Your task to perform on an android device: search for starred emails in the gmail app Image 0: 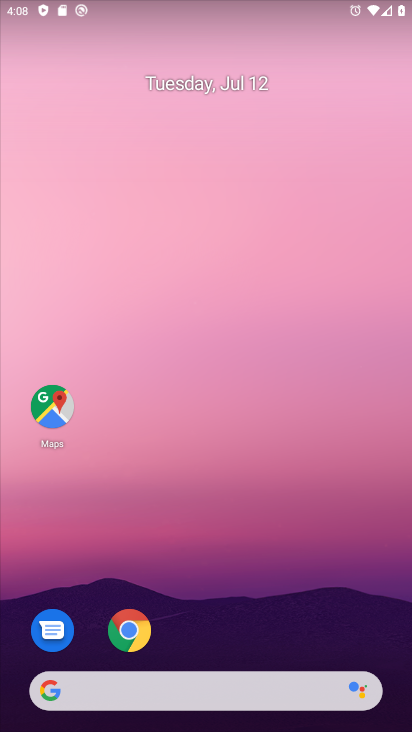
Step 0: drag from (280, 541) to (195, 127)
Your task to perform on an android device: search for starred emails in the gmail app Image 1: 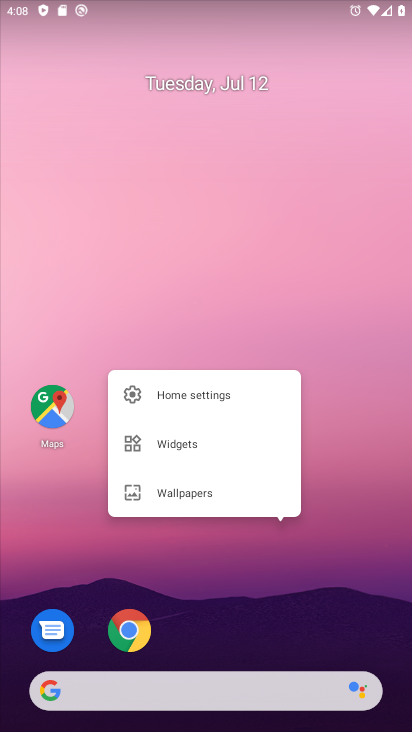
Step 1: click (219, 298)
Your task to perform on an android device: search for starred emails in the gmail app Image 2: 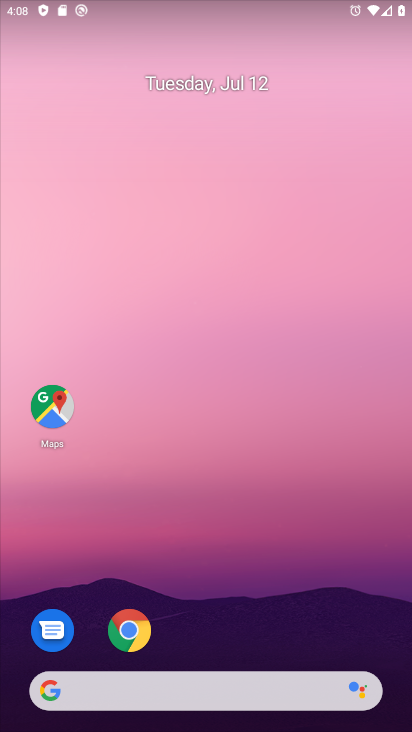
Step 2: drag from (217, 662) to (225, 104)
Your task to perform on an android device: search for starred emails in the gmail app Image 3: 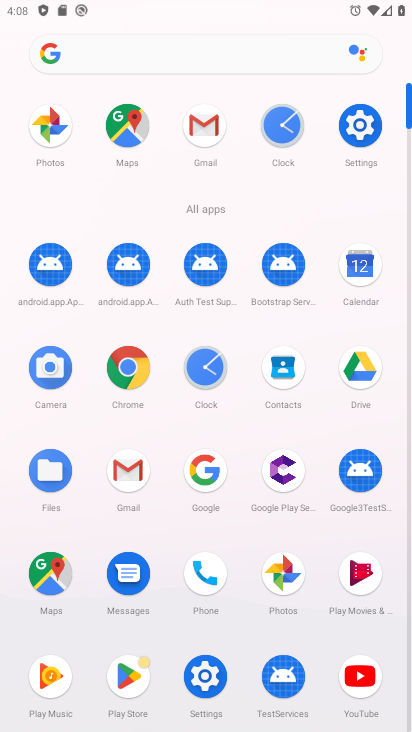
Step 3: click (126, 469)
Your task to perform on an android device: search for starred emails in the gmail app Image 4: 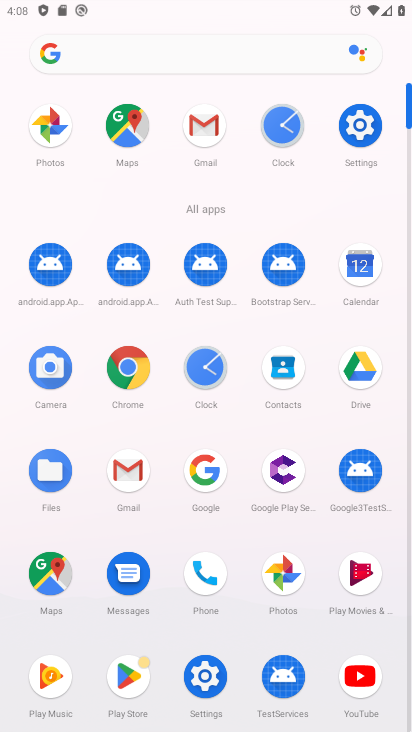
Step 4: click (126, 469)
Your task to perform on an android device: search for starred emails in the gmail app Image 5: 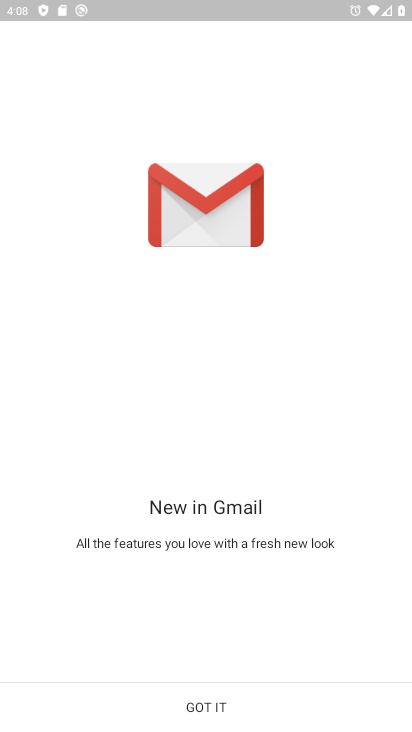
Step 5: click (209, 704)
Your task to perform on an android device: search for starred emails in the gmail app Image 6: 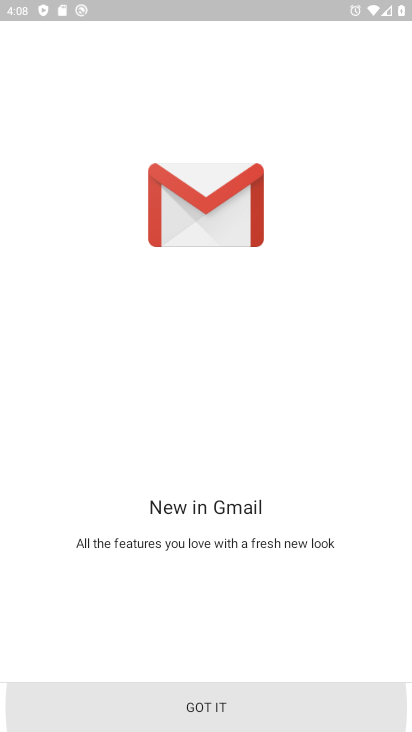
Step 6: click (219, 694)
Your task to perform on an android device: search for starred emails in the gmail app Image 7: 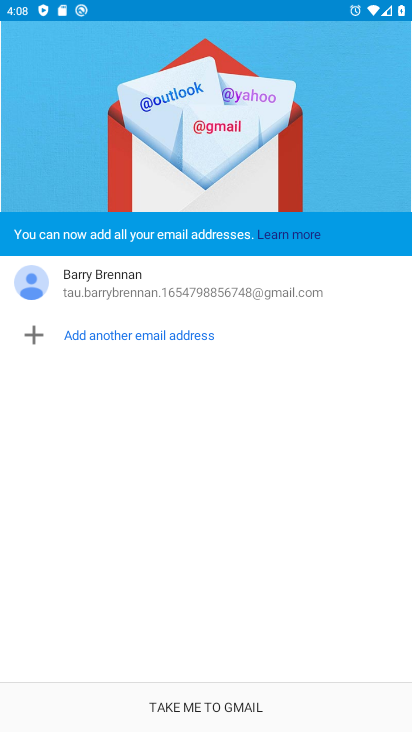
Step 7: click (255, 707)
Your task to perform on an android device: search for starred emails in the gmail app Image 8: 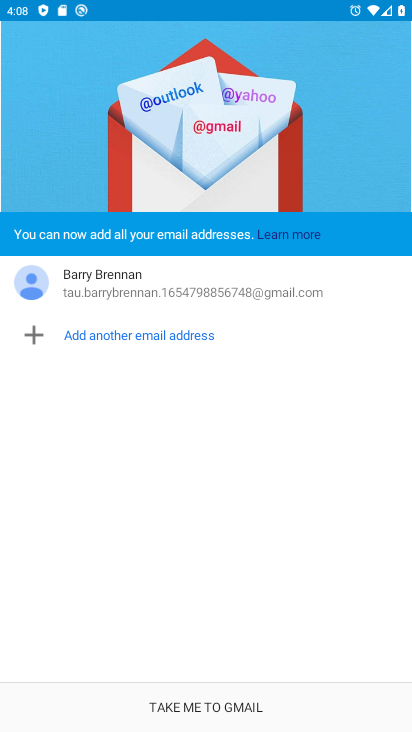
Step 8: click (258, 710)
Your task to perform on an android device: search for starred emails in the gmail app Image 9: 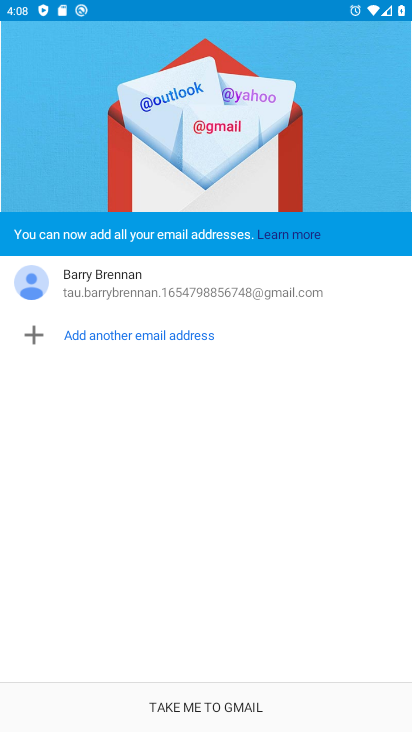
Step 9: click (258, 710)
Your task to perform on an android device: search for starred emails in the gmail app Image 10: 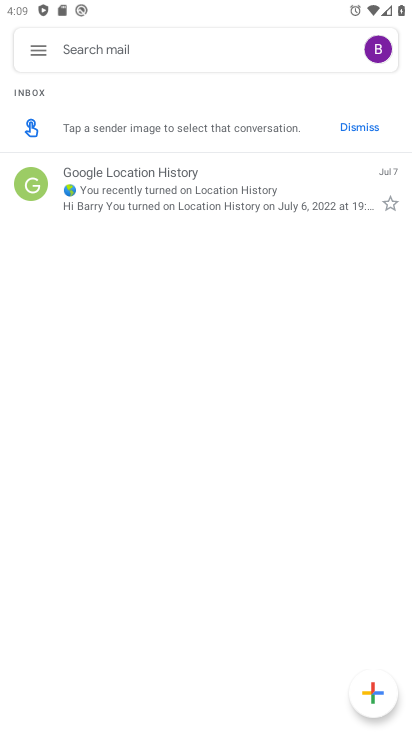
Step 10: click (387, 196)
Your task to perform on an android device: search for starred emails in the gmail app Image 11: 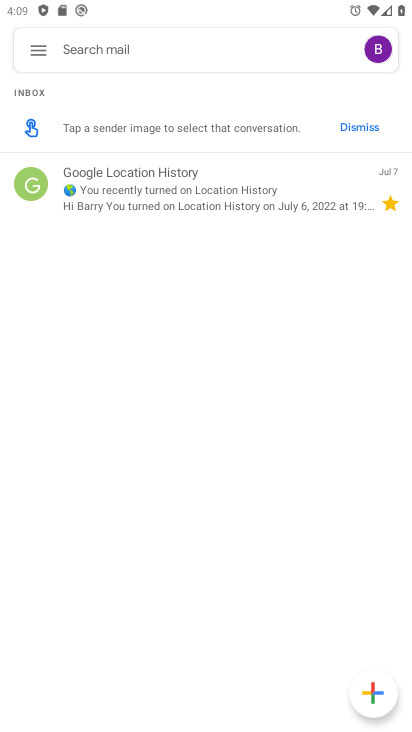
Step 11: task complete